Your task to perform on an android device: Check the news Image 0: 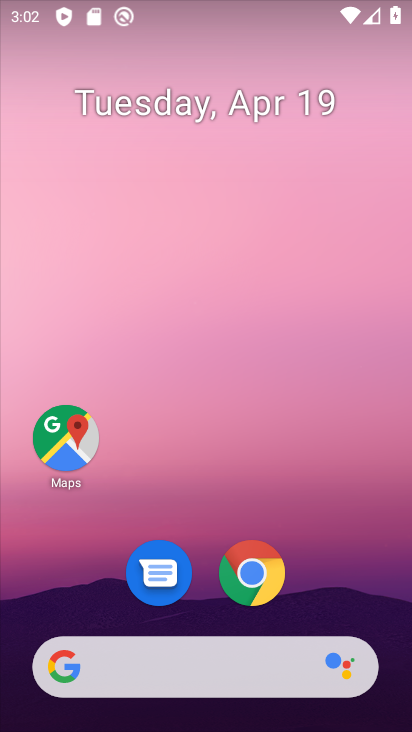
Step 0: drag from (33, 341) to (406, 351)
Your task to perform on an android device: Check the news Image 1: 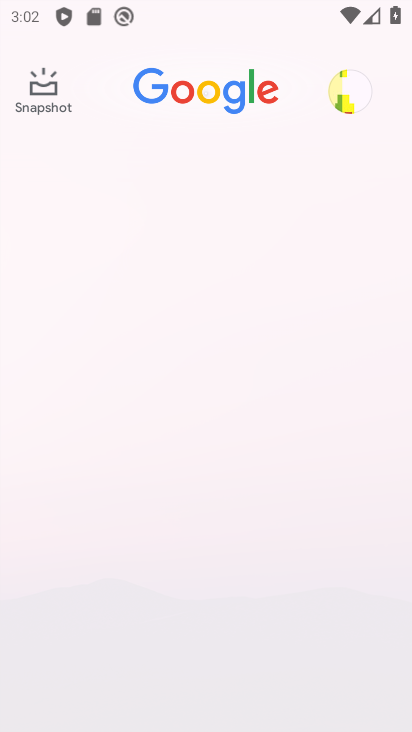
Step 1: task complete